Your task to perform on an android device: Go to calendar. Show me events next week Image 0: 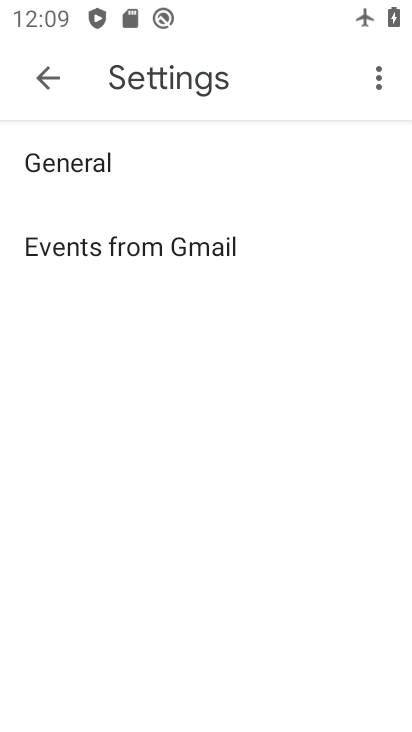
Step 0: press home button
Your task to perform on an android device: Go to calendar. Show me events next week Image 1: 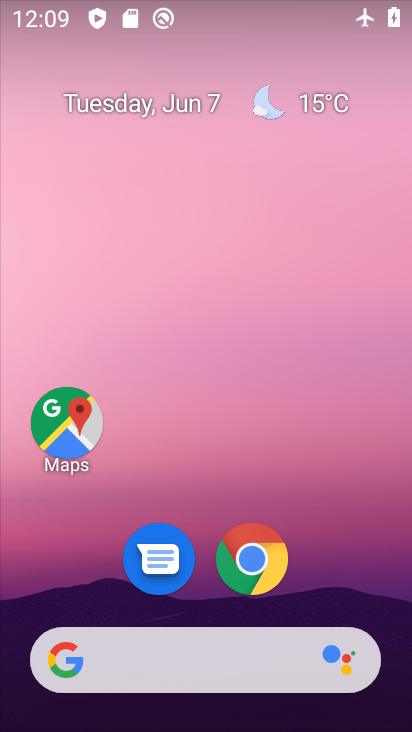
Step 1: drag from (382, 598) to (358, 128)
Your task to perform on an android device: Go to calendar. Show me events next week Image 2: 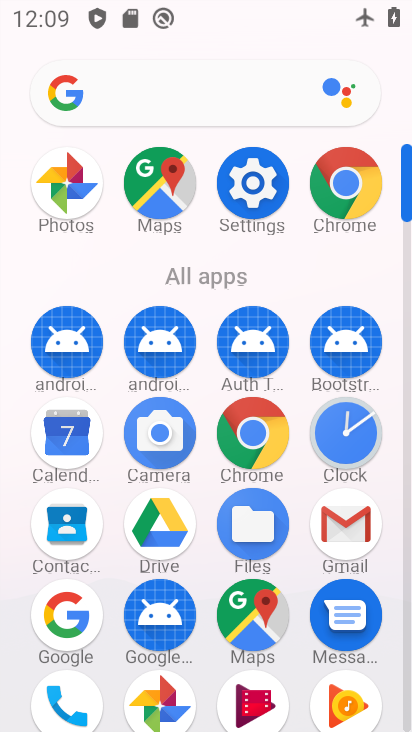
Step 2: click (65, 429)
Your task to perform on an android device: Go to calendar. Show me events next week Image 3: 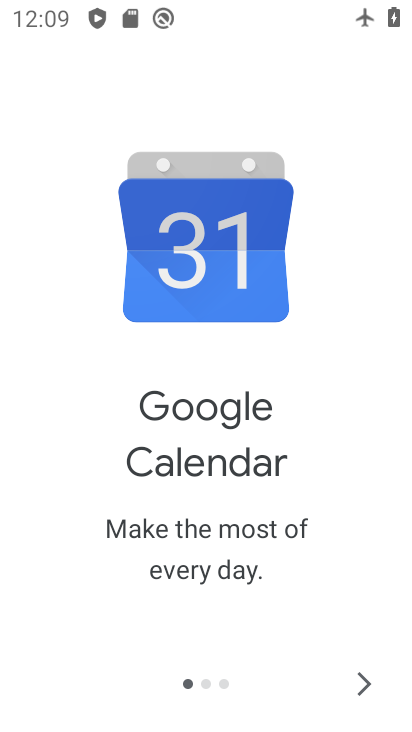
Step 3: click (360, 677)
Your task to perform on an android device: Go to calendar. Show me events next week Image 4: 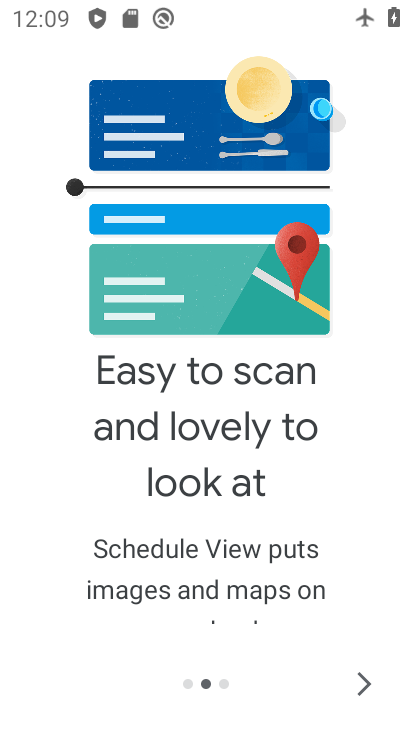
Step 4: click (359, 679)
Your task to perform on an android device: Go to calendar. Show me events next week Image 5: 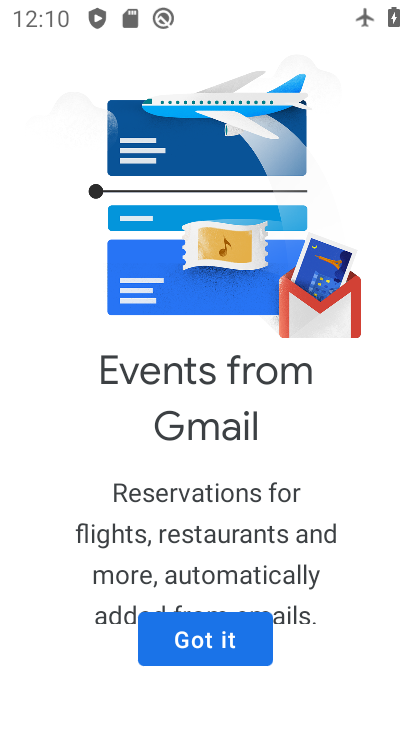
Step 5: click (207, 635)
Your task to perform on an android device: Go to calendar. Show me events next week Image 6: 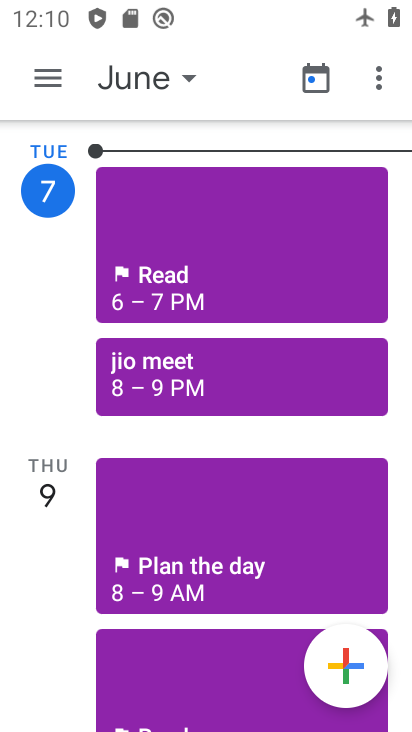
Step 6: click (40, 74)
Your task to perform on an android device: Go to calendar. Show me events next week Image 7: 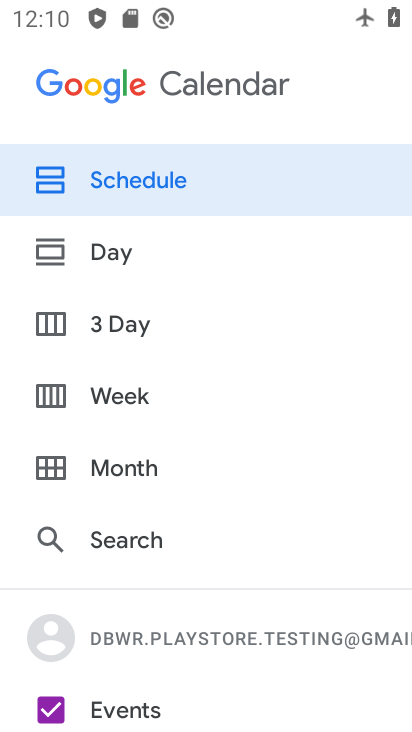
Step 7: click (111, 394)
Your task to perform on an android device: Go to calendar. Show me events next week Image 8: 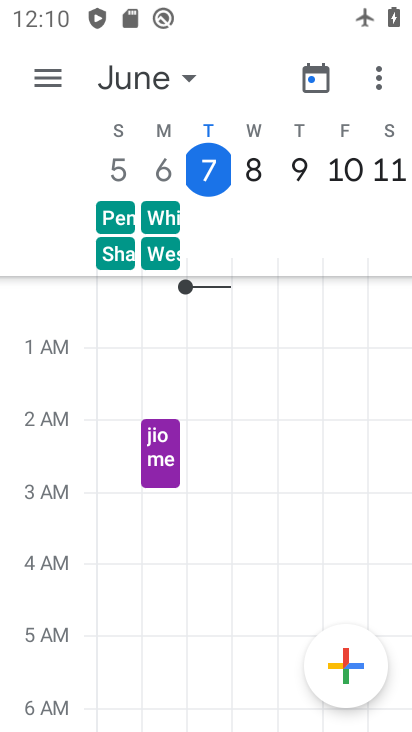
Step 8: task complete